Your task to perform on an android device: Is it going to rain this weekend? Image 0: 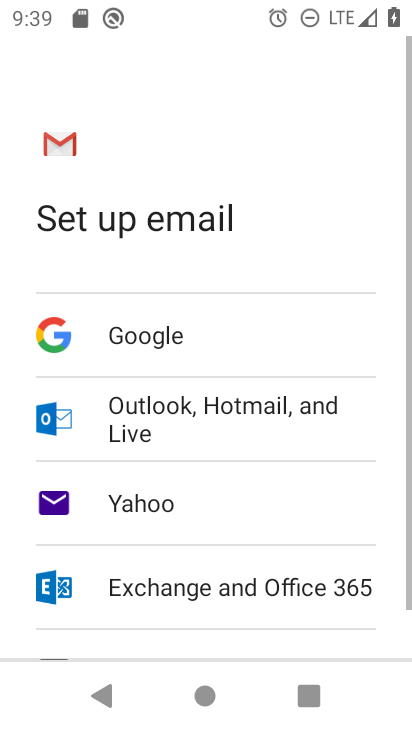
Step 0: press home button
Your task to perform on an android device: Is it going to rain this weekend? Image 1: 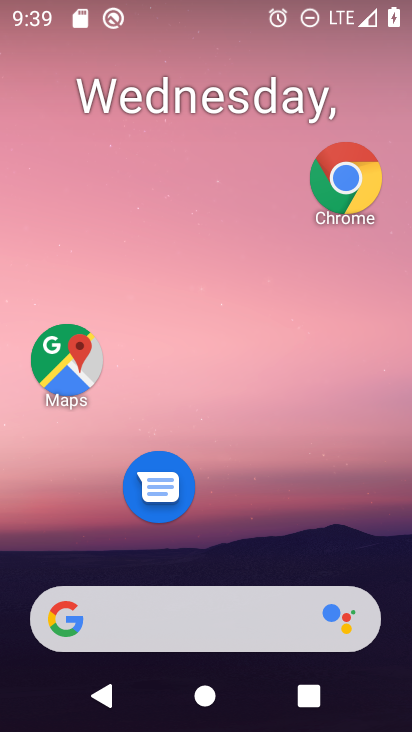
Step 1: drag from (216, 656) to (262, 152)
Your task to perform on an android device: Is it going to rain this weekend? Image 2: 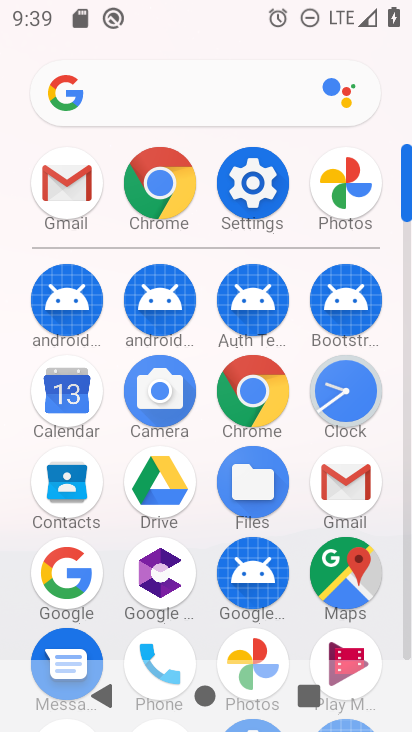
Step 2: click (62, 586)
Your task to perform on an android device: Is it going to rain this weekend? Image 3: 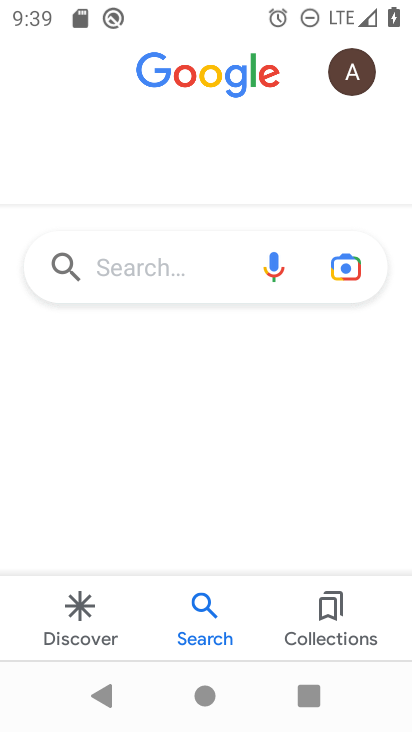
Step 3: click (158, 266)
Your task to perform on an android device: Is it going to rain this weekend? Image 4: 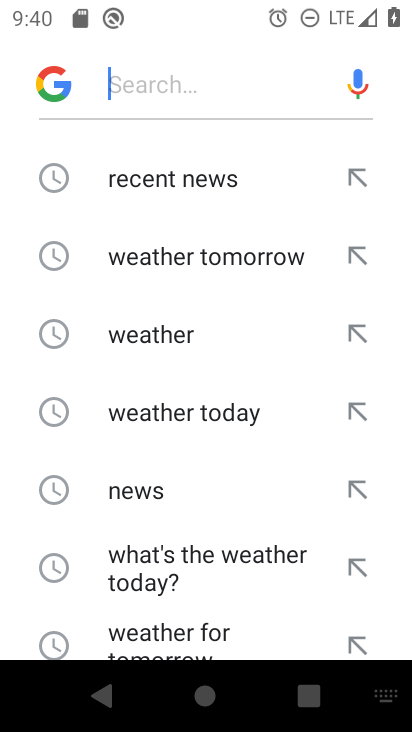
Step 4: click (176, 336)
Your task to perform on an android device: Is it going to rain this weekend? Image 5: 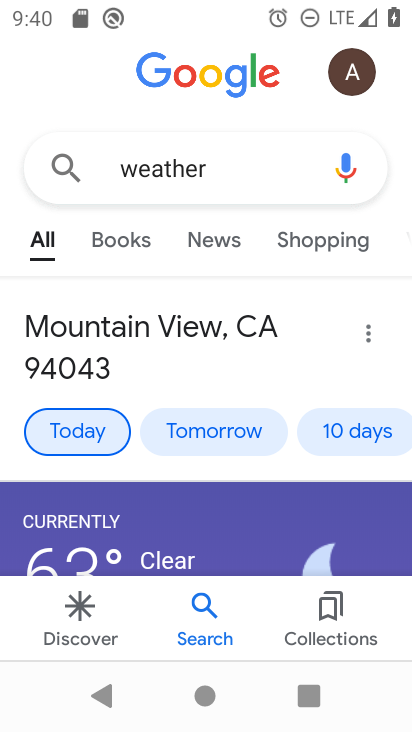
Step 5: click (350, 425)
Your task to perform on an android device: Is it going to rain this weekend? Image 6: 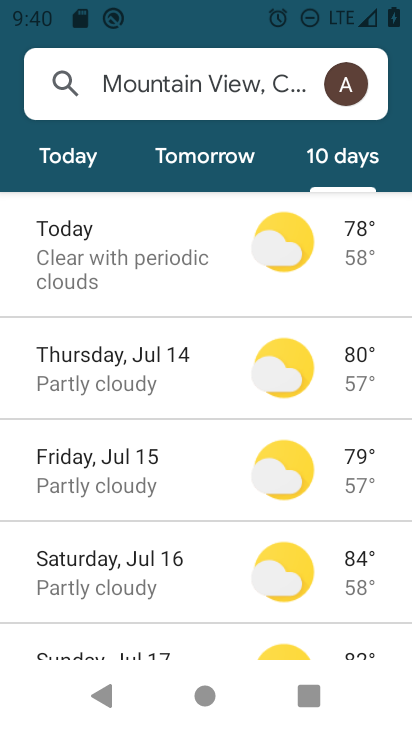
Step 6: task complete